Your task to perform on an android device: toggle translation in the chrome app Image 0: 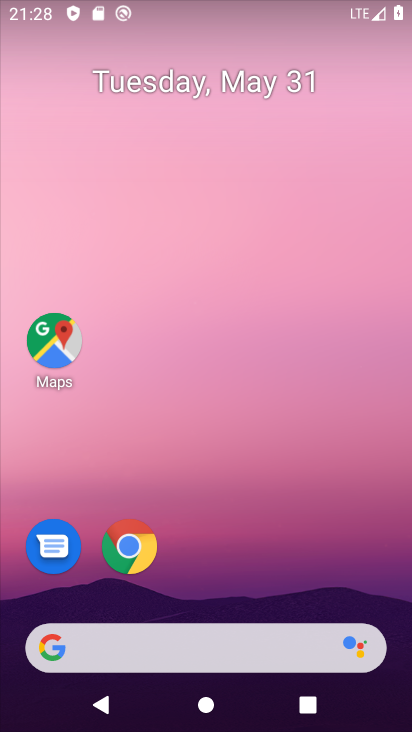
Step 0: click (134, 534)
Your task to perform on an android device: toggle translation in the chrome app Image 1: 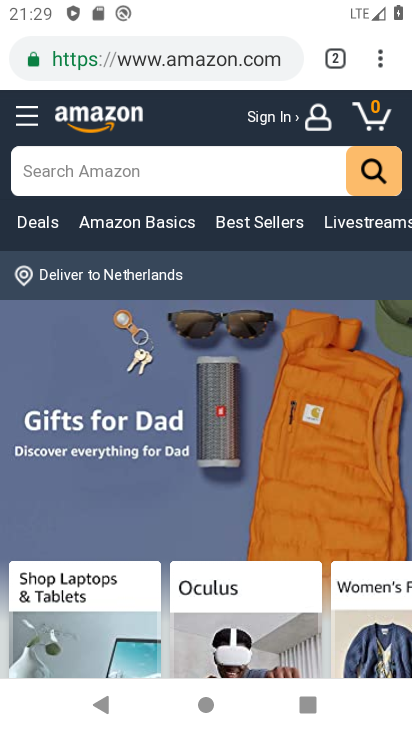
Step 1: click (376, 52)
Your task to perform on an android device: toggle translation in the chrome app Image 2: 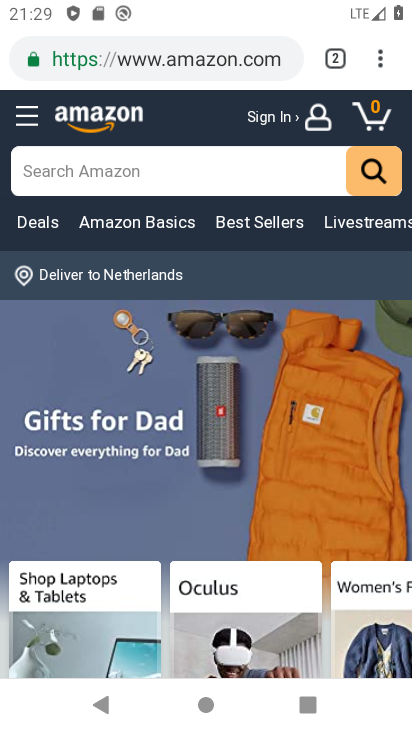
Step 2: click (377, 55)
Your task to perform on an android device: toggle translation in the chrome app Image 3: 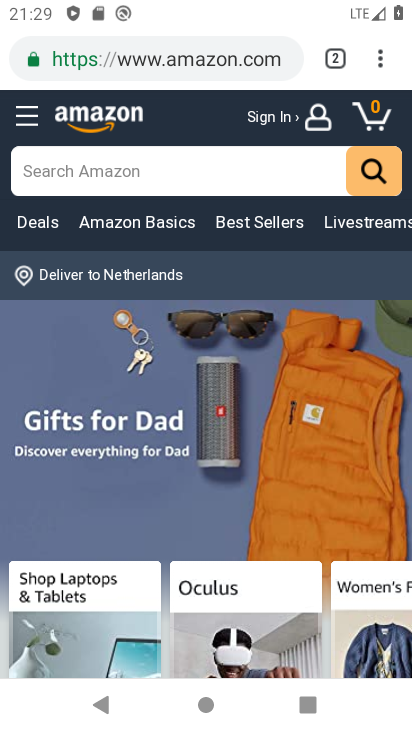
Step 3: click (375, 53)
Your task to perform on an android device: toggle translation in the chrome app Image 4: 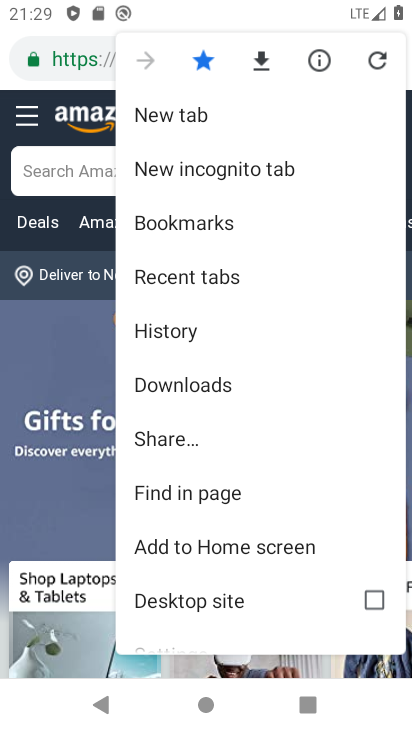
Step 4: drag from (316, 541) to (333, 164)
Your task to perform on an android device: toggle translation in the chrome app Image 5: 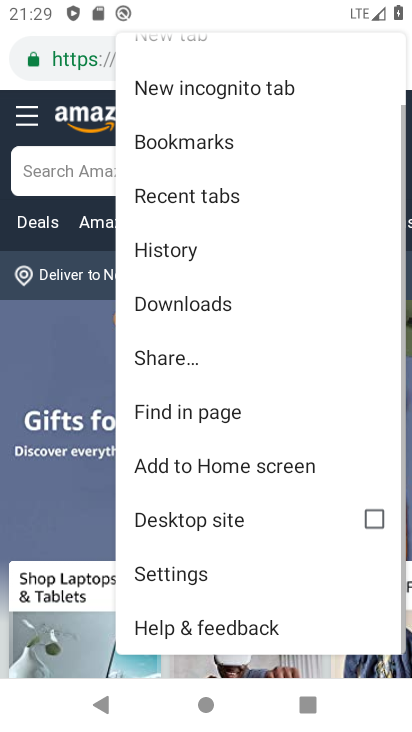
Step 5: click (183, 565)
Your task to perform on an android device: toggle translation in the chrome app Image 6: 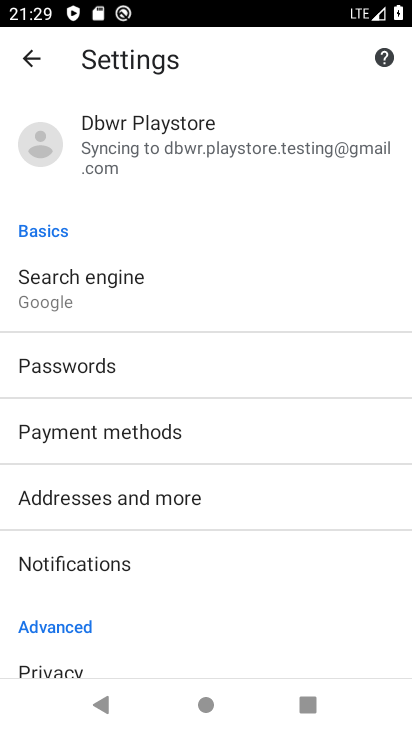
Step 6: drag from (242, 632) to (256, 290)
Your task to perform on an android device: toggle translation in the chrome app Image 7: 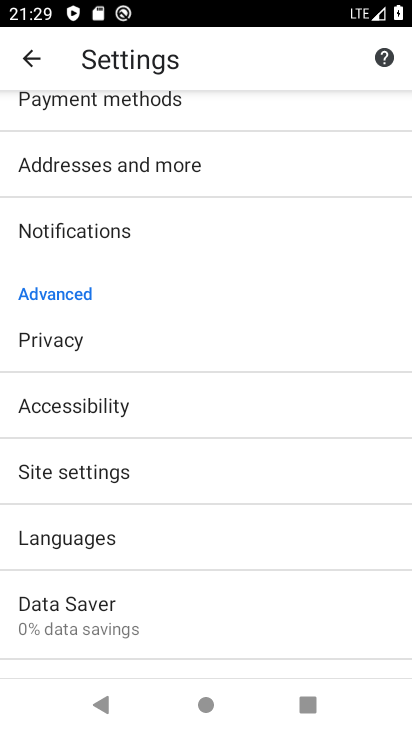
Step 7: click (56, 536)
Your task to perform on an android device: toggle translation in the chrome app Image 8: 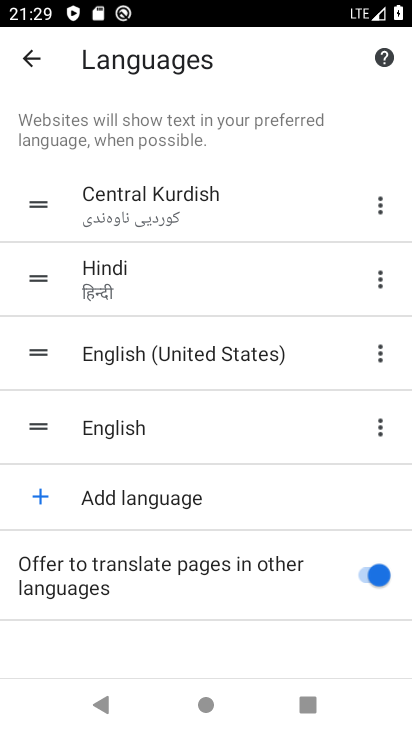
Step 8: click (360, 574)
Your task to perform on an android device: toggle translation in the chrome app Image 9: 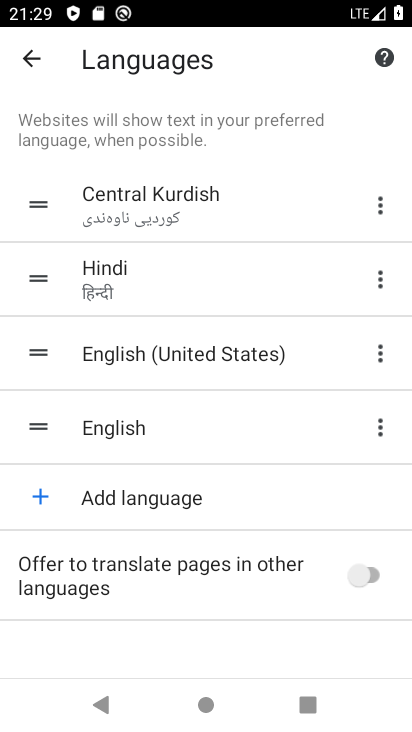
Step 9: task complete